Your task to perform on an android device: turn off wifi Image 0: 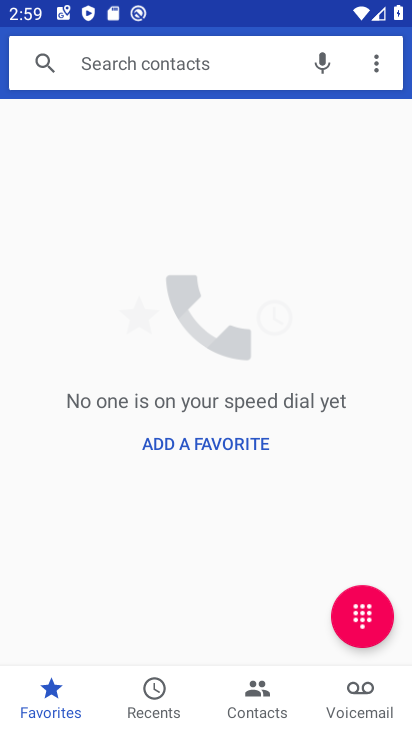
Step 0: press back button
Your task to perform on an android device: turn off wifi Image 1: 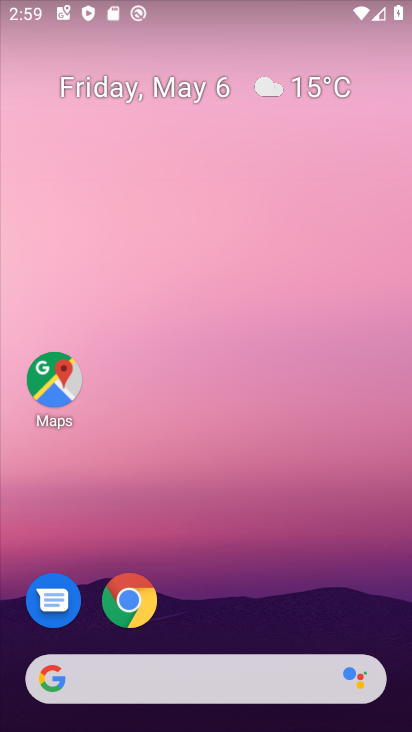
Step 1: drag from (237, 606) to (237, 34)
Your task to perform on an android device: turn off wifi Image 2: 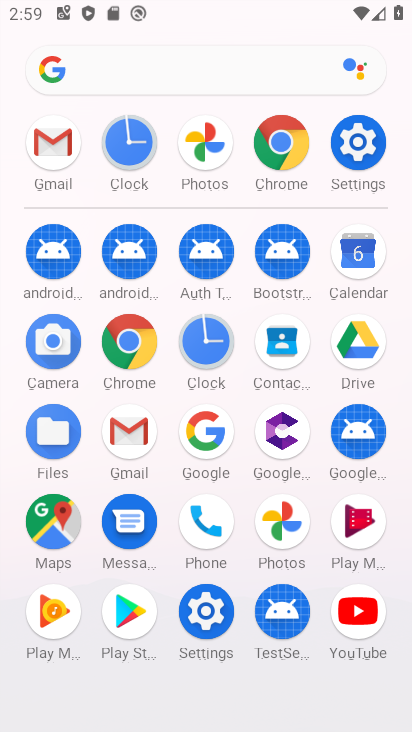
Step 2: click (202, 602)
Your task to perform on an android device: turn off wifi Image 3: 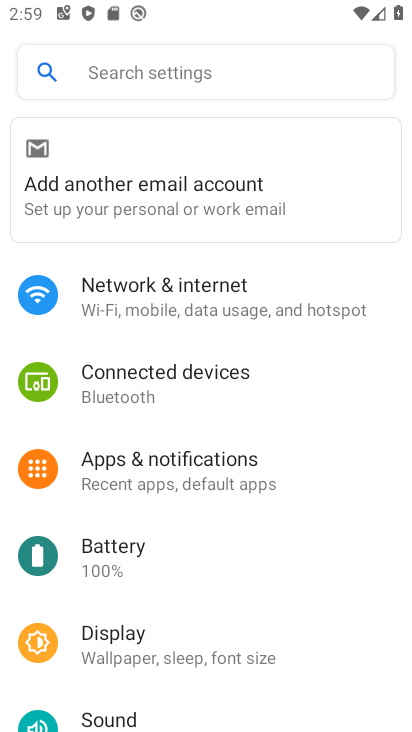
Step 3: click (204, 286)
Your task to perform on an android device: turn off wifi Image 4: 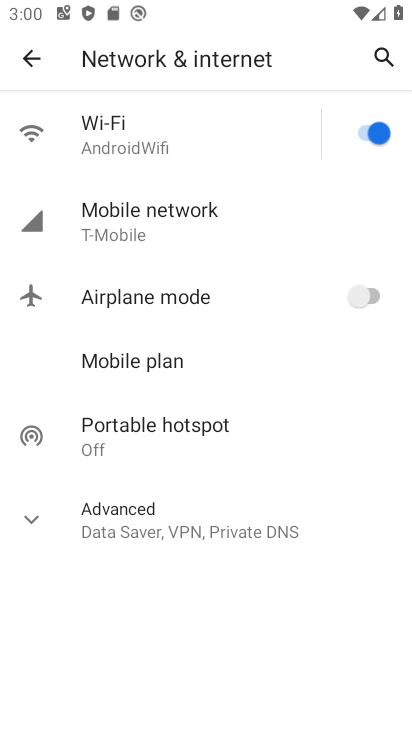
Step 4: click (37, 517)
Your task to perform on an android device: turn off wifi Image 5: 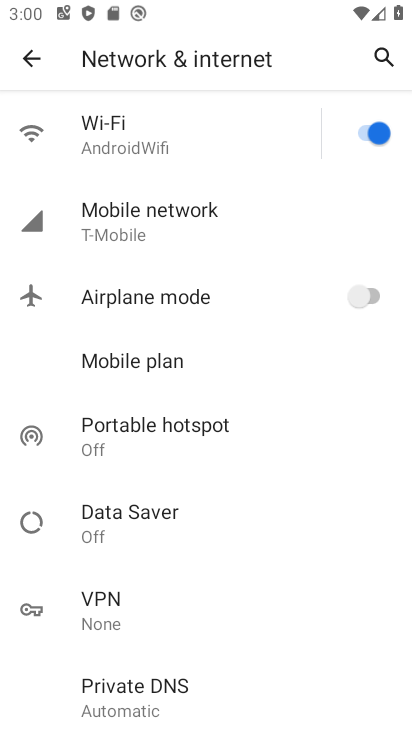
Step 5: click (368, 131)
Your task to perform on an android device: turn off wifi Image 6: 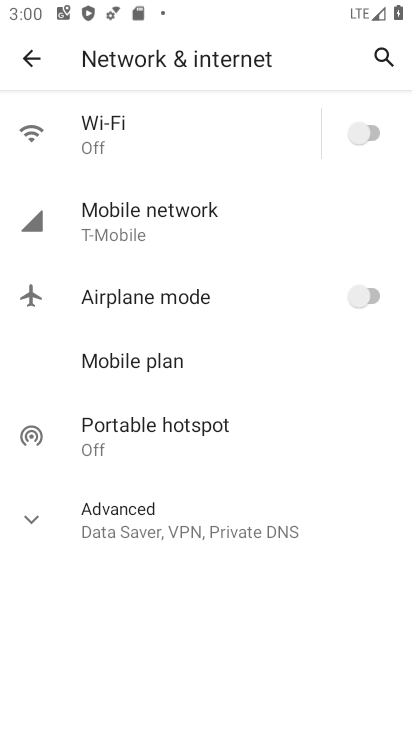
Step 6: task complete